Your task to perform on an android device: Open sound settings Image 0: 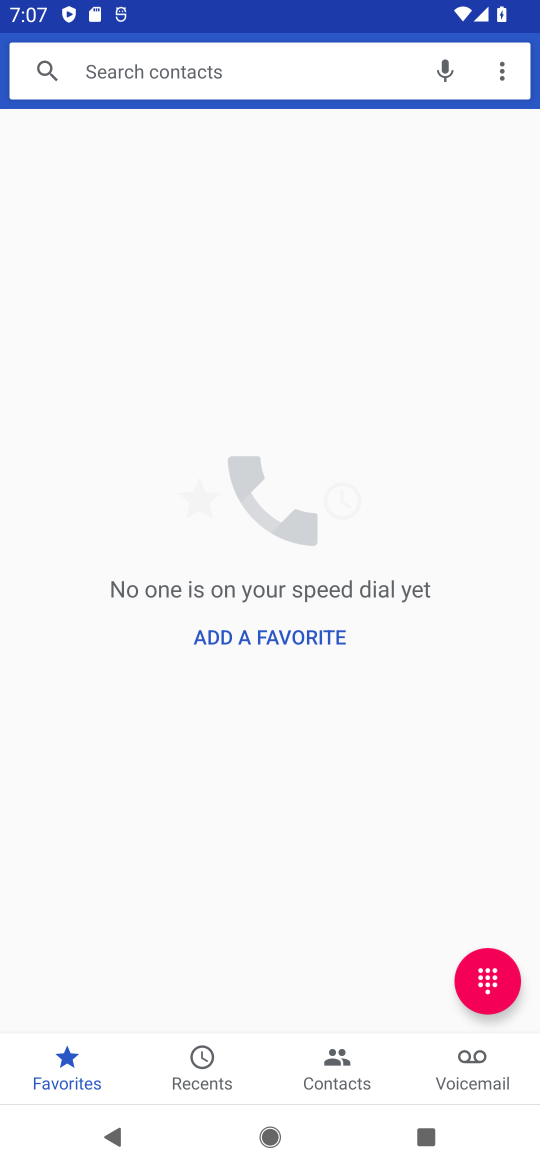
Step 0: press home button
Your task to perform on an android device: Open sound settings Image 1: 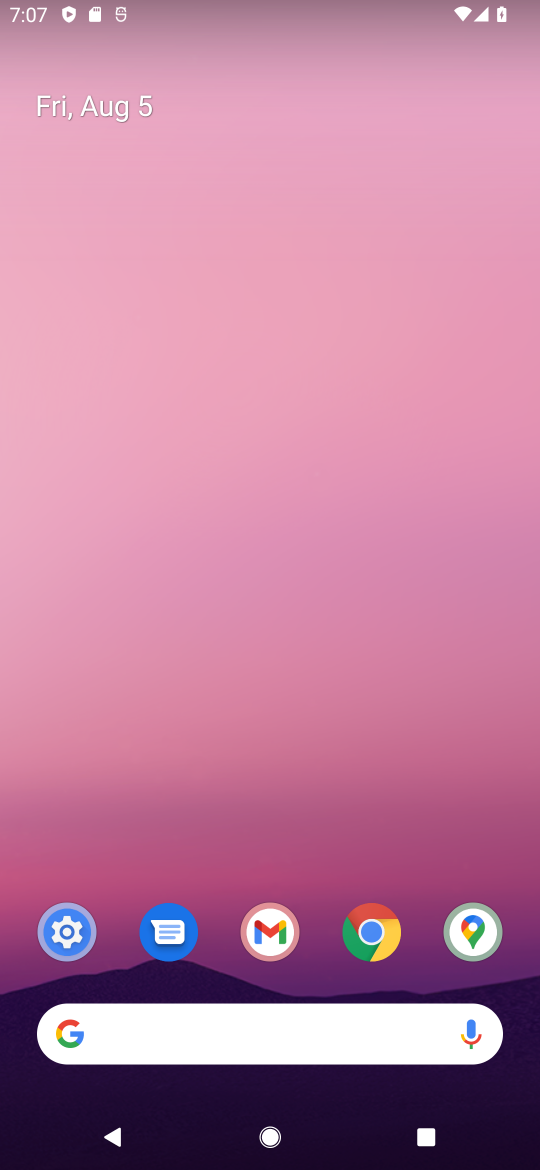
Step 1: drag from (376, 830) to (418, 118)
Your task to perform on an android device: Open sound settings Image 2: 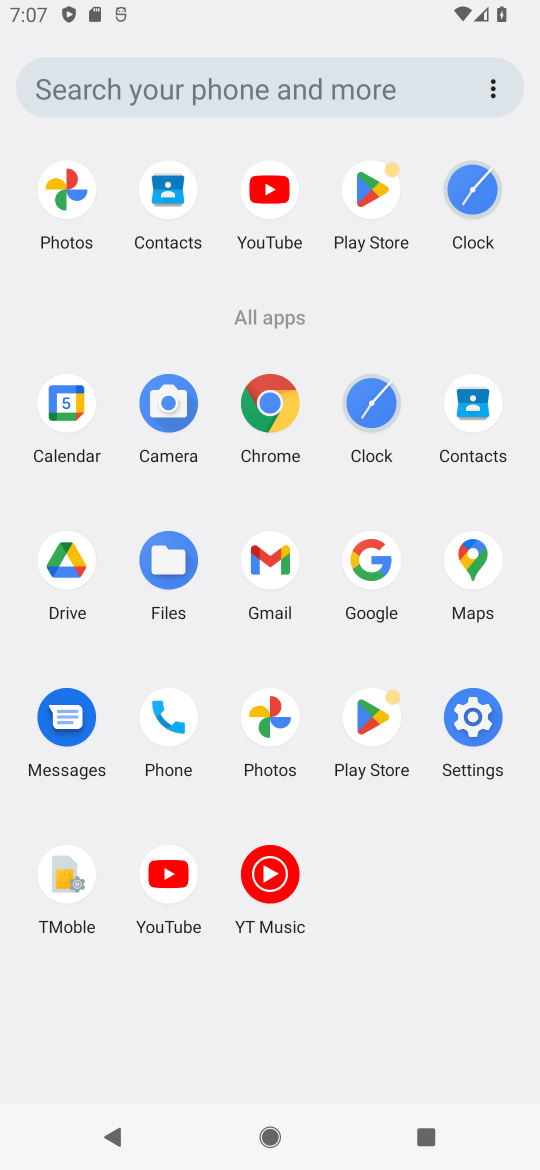
Step 2: click (471, 725)
Your task to perform on an android device: Open sound settings Image 3: 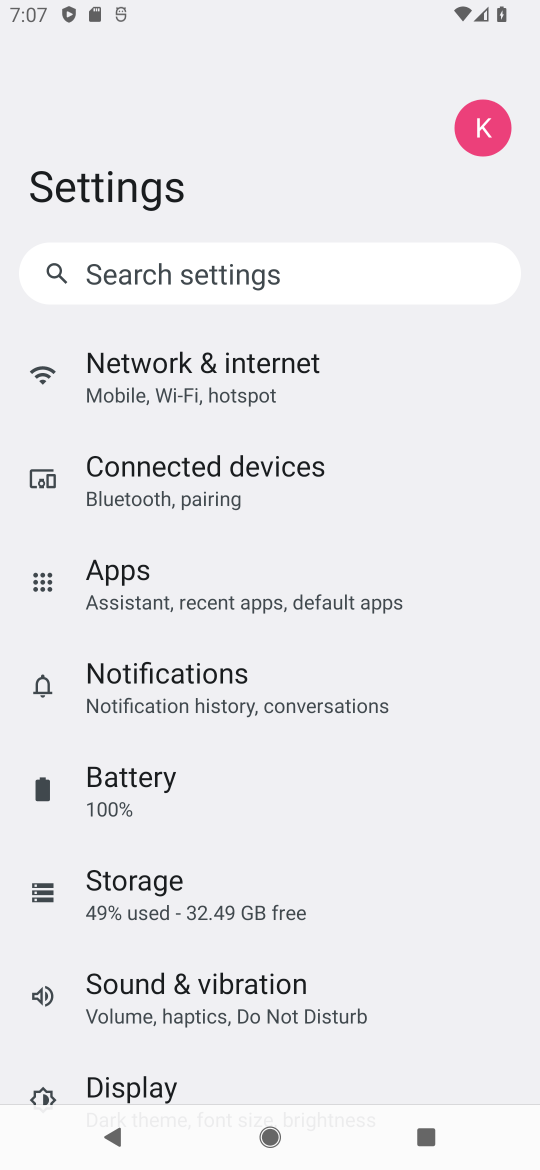
Step 3: drag from (281, 852) to (311, 334)
Your task to perform on an android device: Open sound settings Image 4: 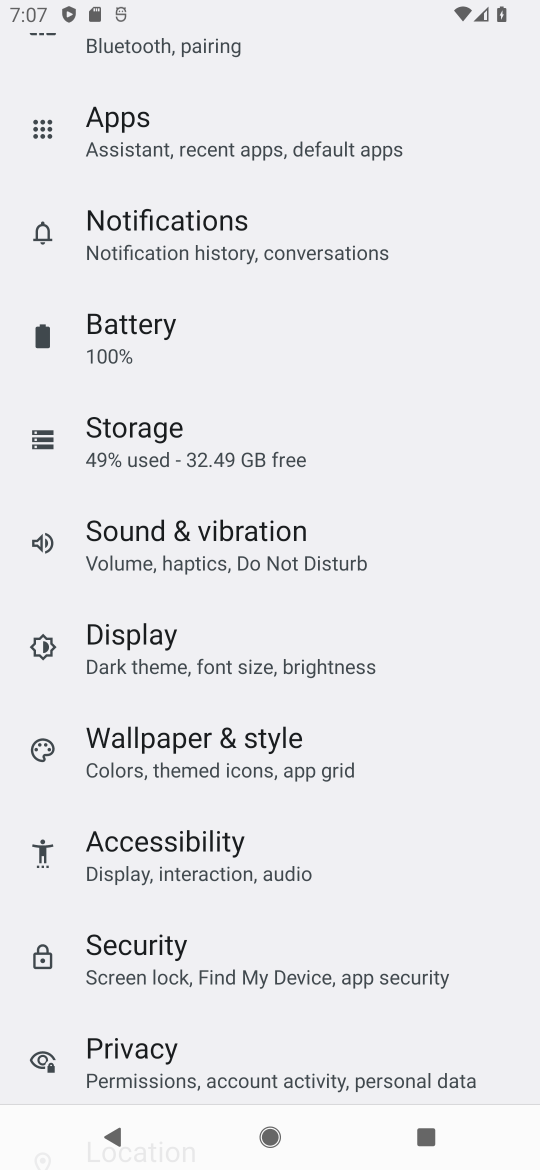
Step 4: click (206, 539)
Your task to perform on an android device: Open sound settings Image 5: 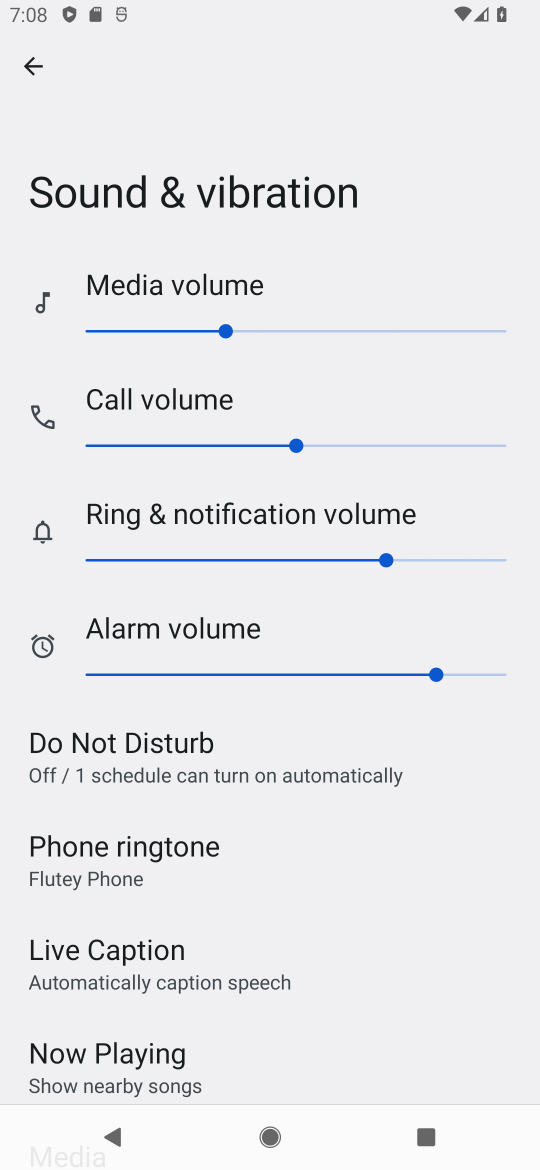
Step 5: task complete